Your task to perform on an android device: Open Google Maps Image 0: 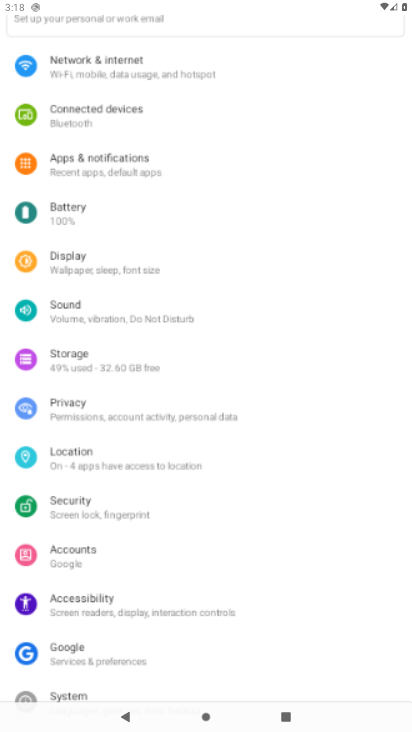
Step 0: click (126, 685)
Your task to perform on an android device: Open Google Maps Image 1: 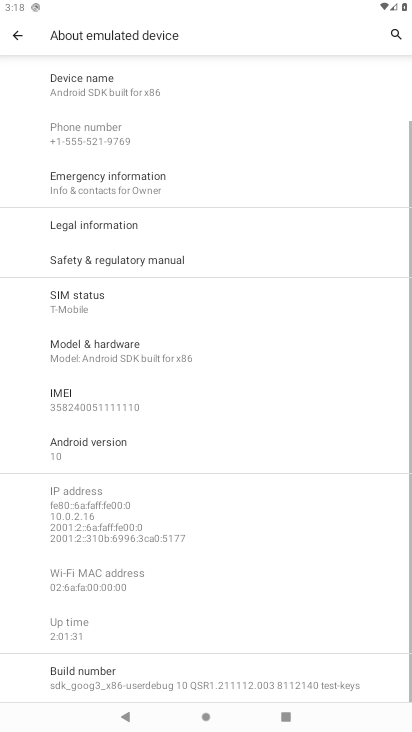
Step 1: press home button
Your task to perform on an android device: Open Google Maps Image 2: 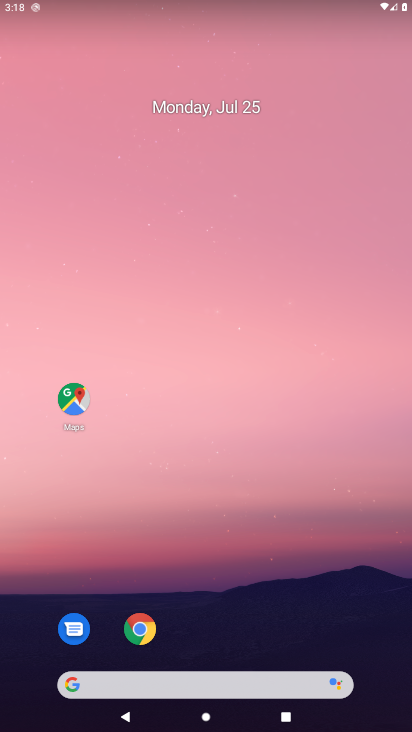
Step 2: click (64, 396)
Your task to perform on an android device: Open Google Maps Image 3: 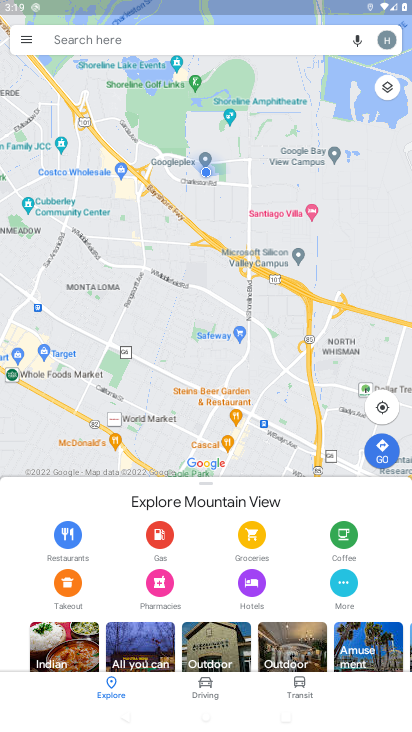
Step 3: task complete